Your task to perform on an android device: turn smart compose on in the gmail app Image 0: 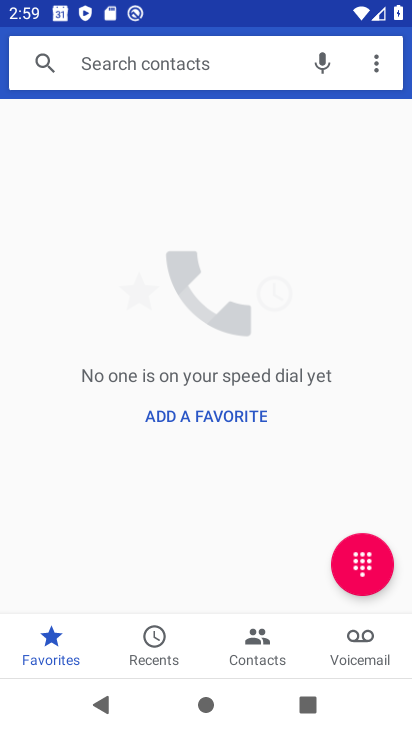
Step 0: press home button
Your task to perform on an android device: turn smart compose on in the gmail app Image 1: 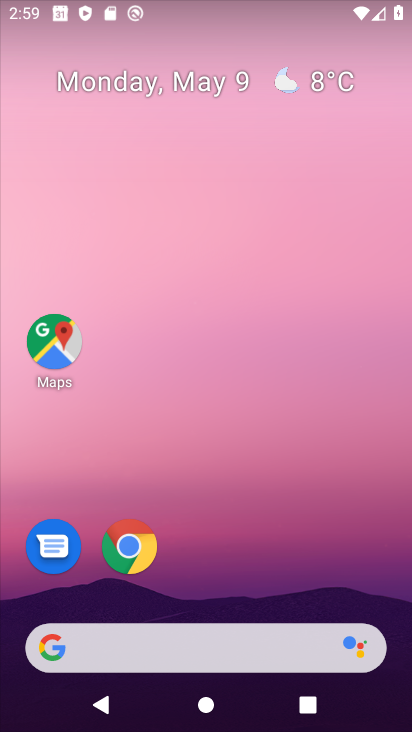
Step 1: drag from (255, 483) to (260, 63)
Your task to perform on an android device: turn smart compose on in the gmail app Image 2: 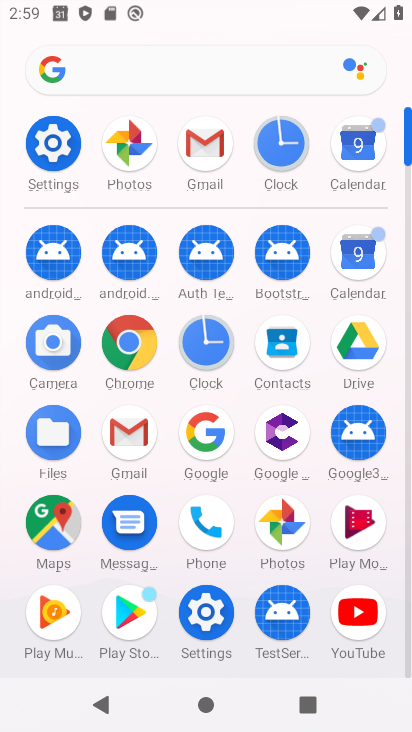
Step 2: click (206, 152)
Your task to perform on an android device: turn smart compose on in the gmail app Image 3: 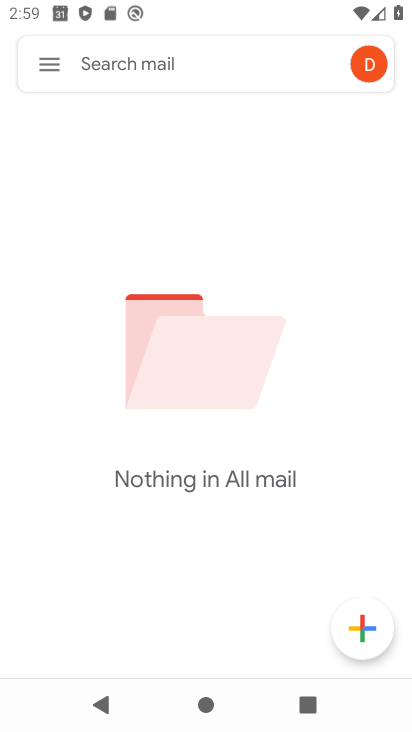
Step 3: click (50, 60)
Your task to perform on an android device: turn smart compose on in the gmail app Image 4: 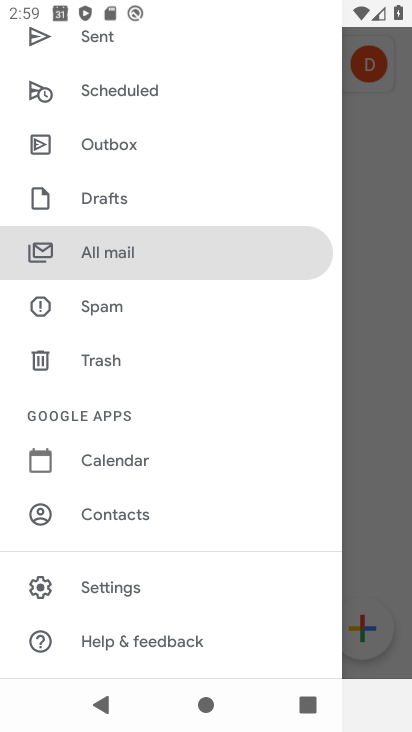
Step 4: click (105, 588)
Your task to perform on an android device: turn smart compose on in the gmail app Image 5: 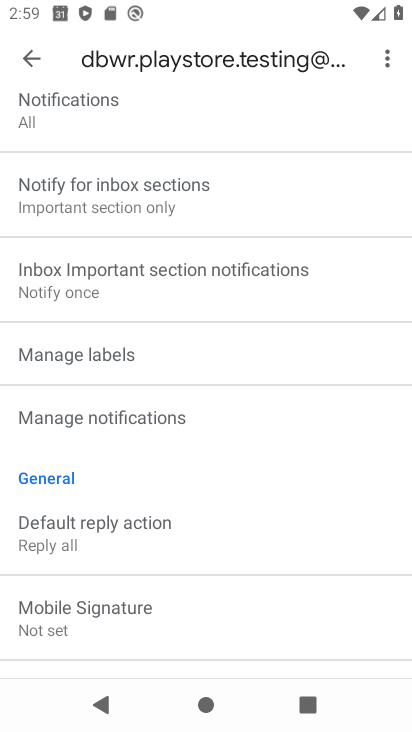
Step 5: task complete